Your task to perform on an android device: install app "Mercado Libre" Image 0: 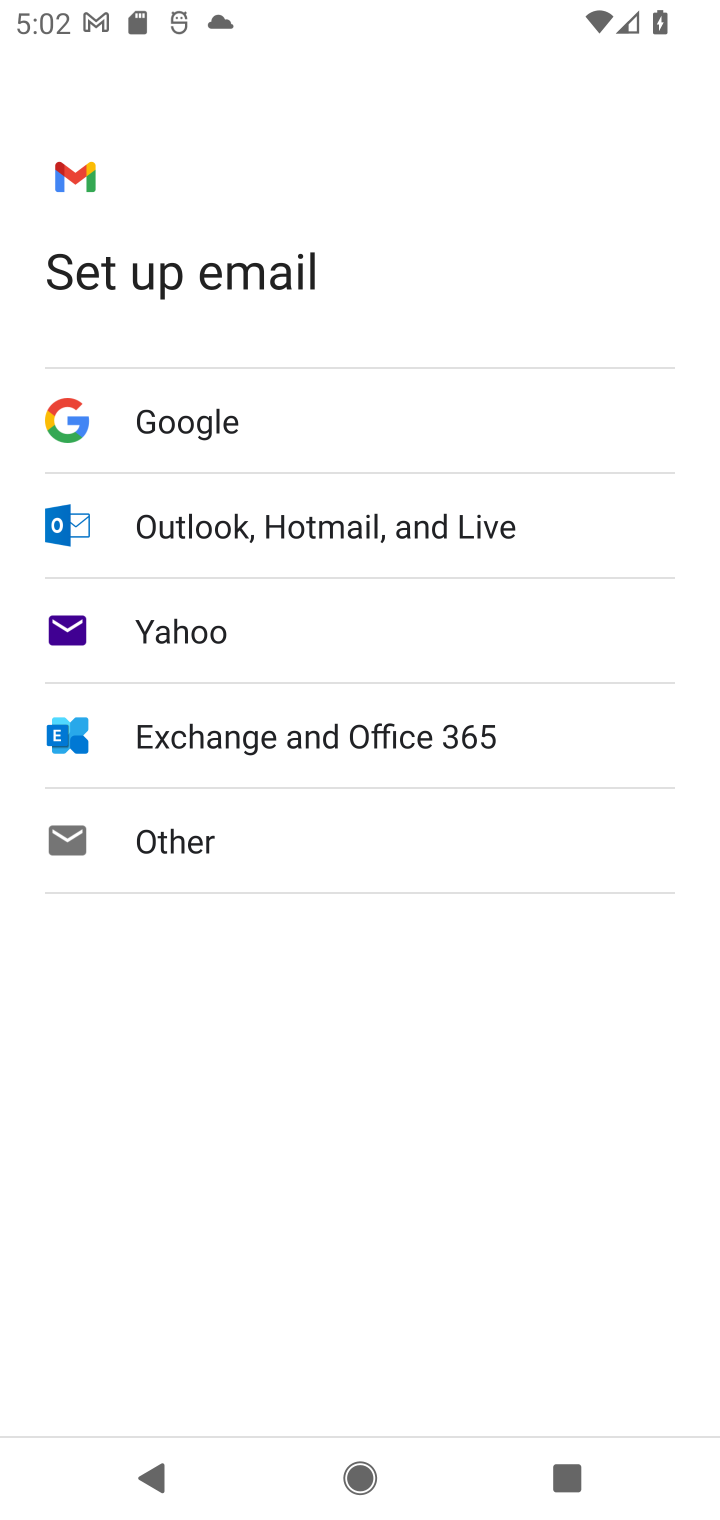
Step 0: press home button
Your task to perform on an android device: install app "Mercado Libre" Image 1: 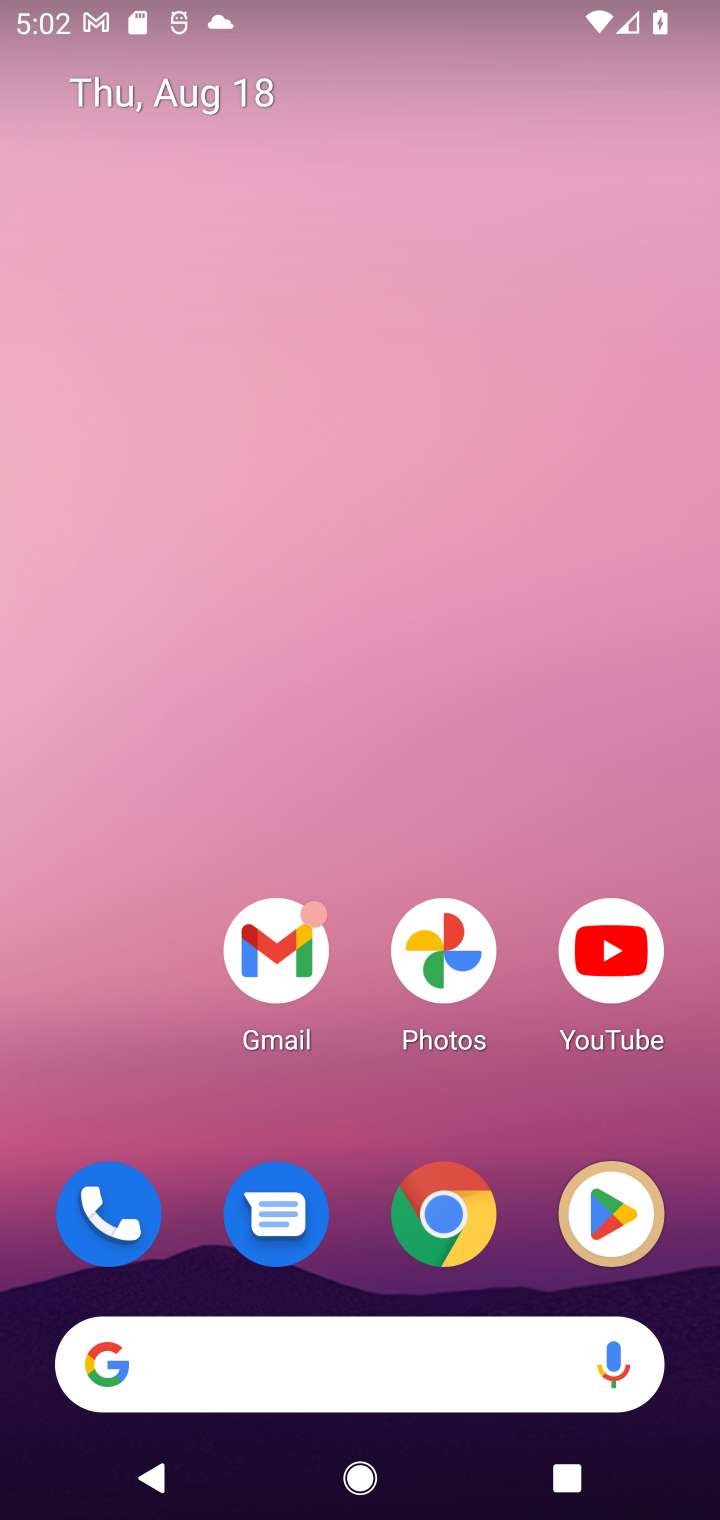
Step 1: click (612, 1194)
Your task to perform on an android device: install app "Mercado Libre" Image 2: 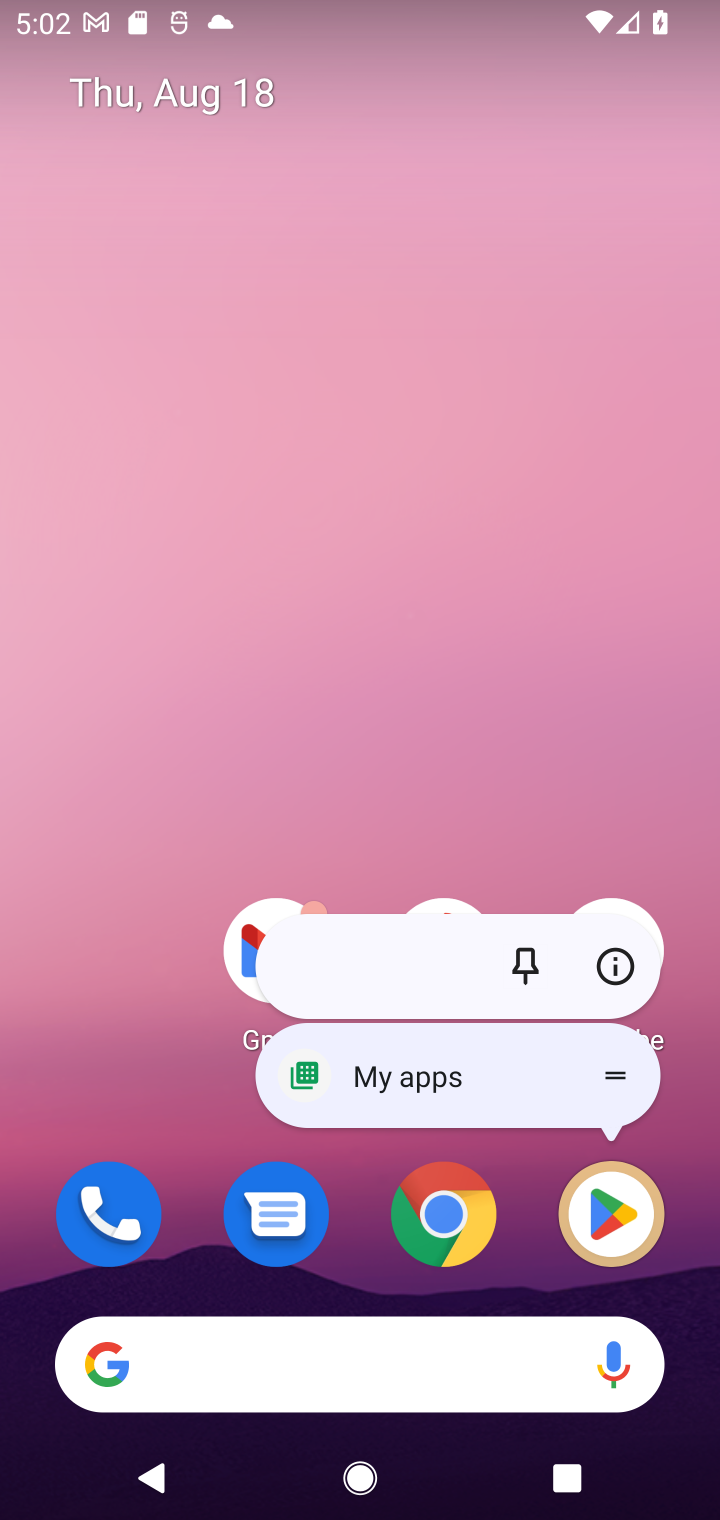
Step 2: click (606, 1194)
Your task to perform on an android device: install app "Mercado Libre" Image 3: 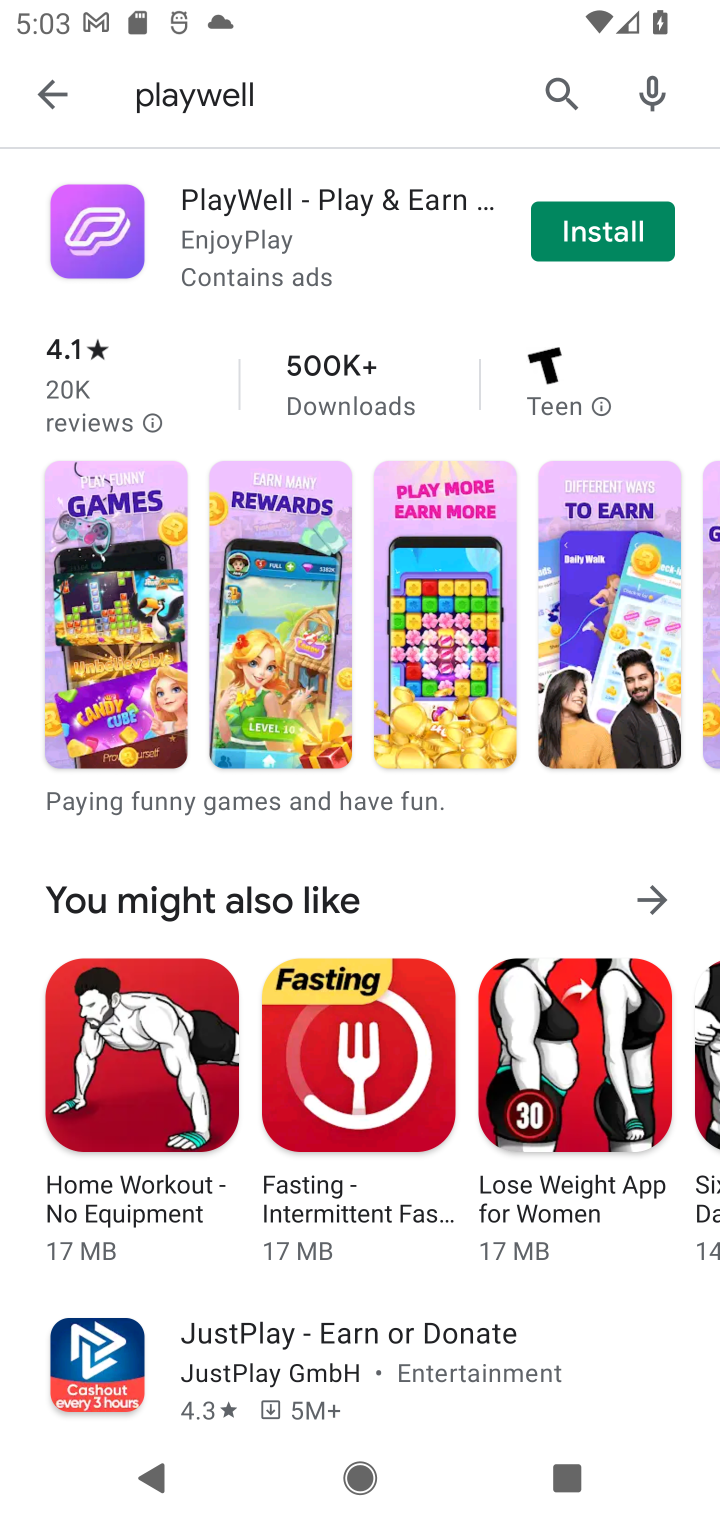
Step 3: click (317, 94)
Your task to perform on an android device: install app "Mercado Libre" Image 4: 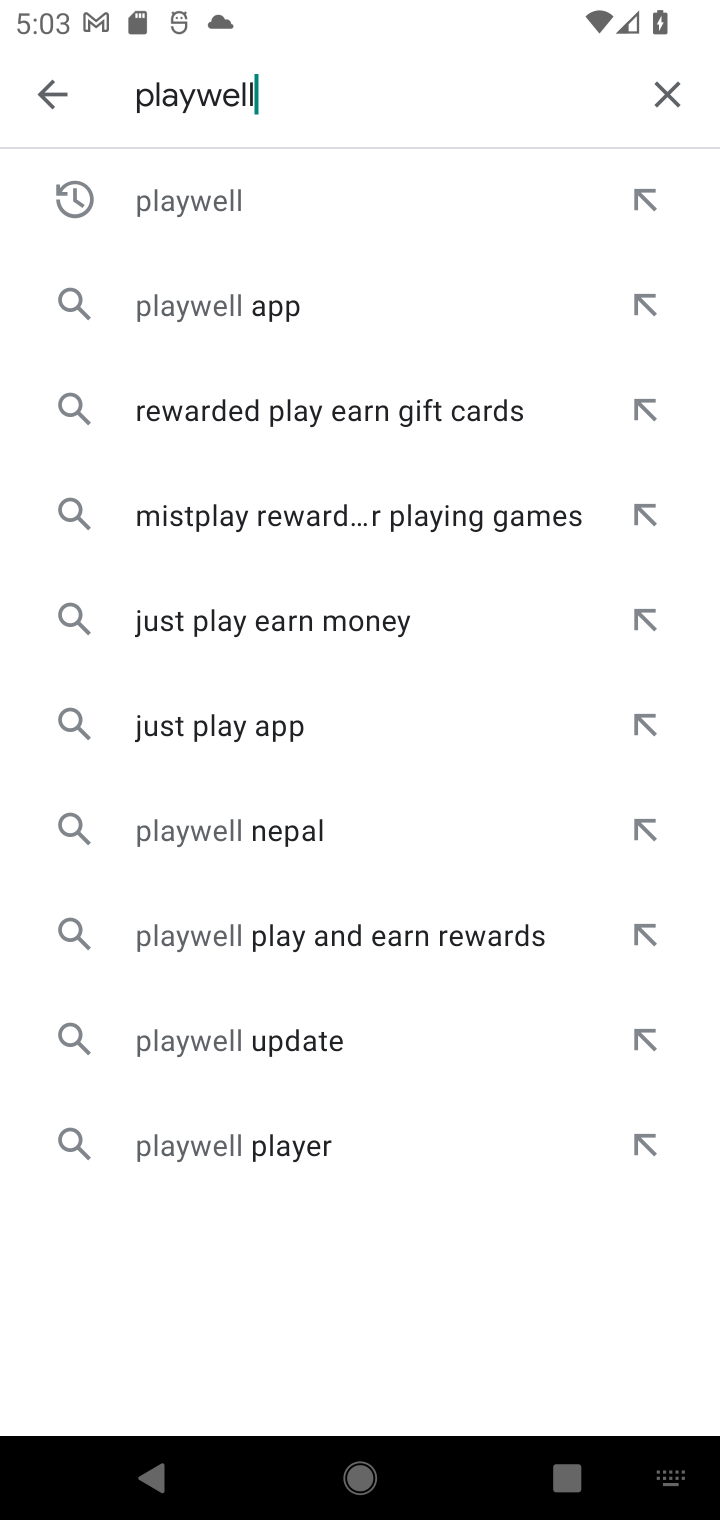
Step 4: click (669, 82)
Your task to perform on an android device: install app "Mercado Libre" Image 5: 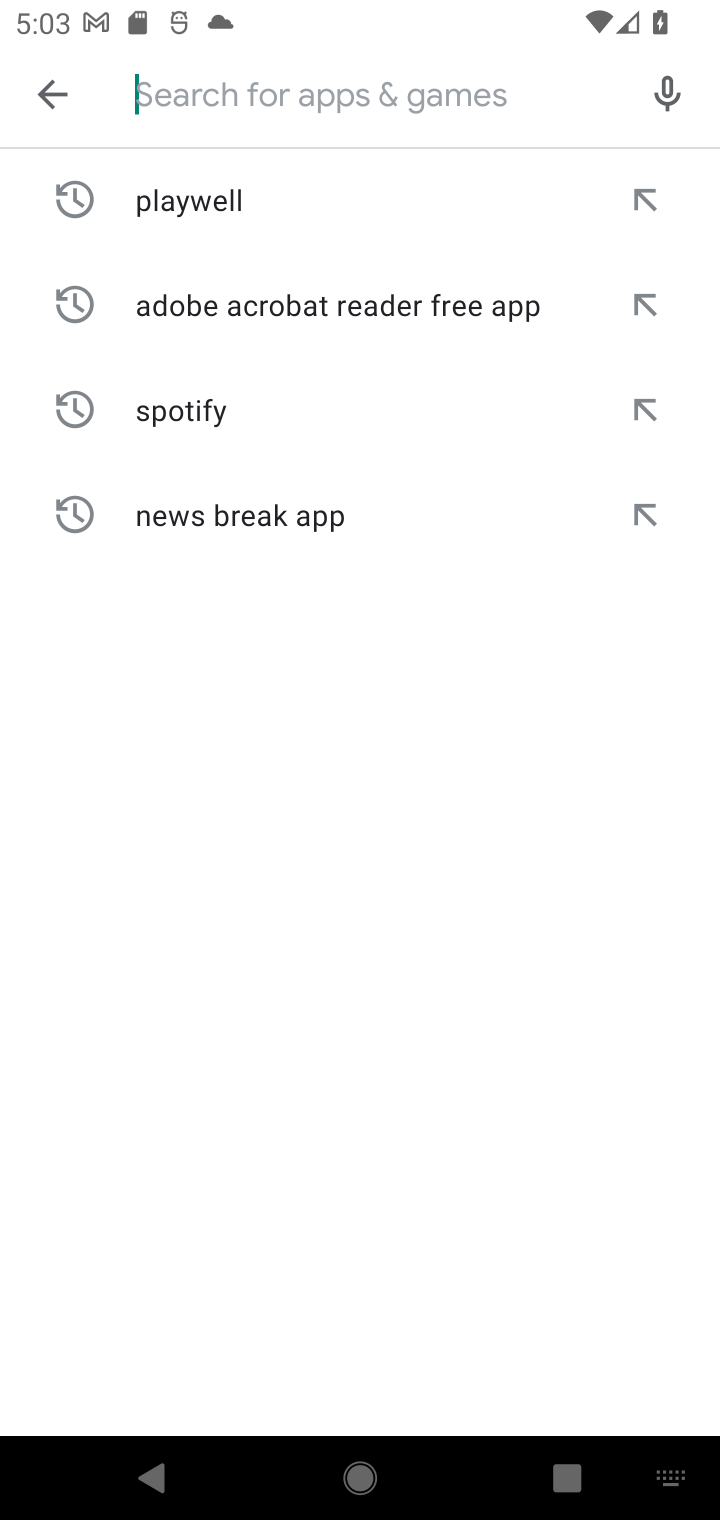
Step 5: type "mercado libre"
Your task to perform on an android device: install app "Mercado Libre" Image 6: 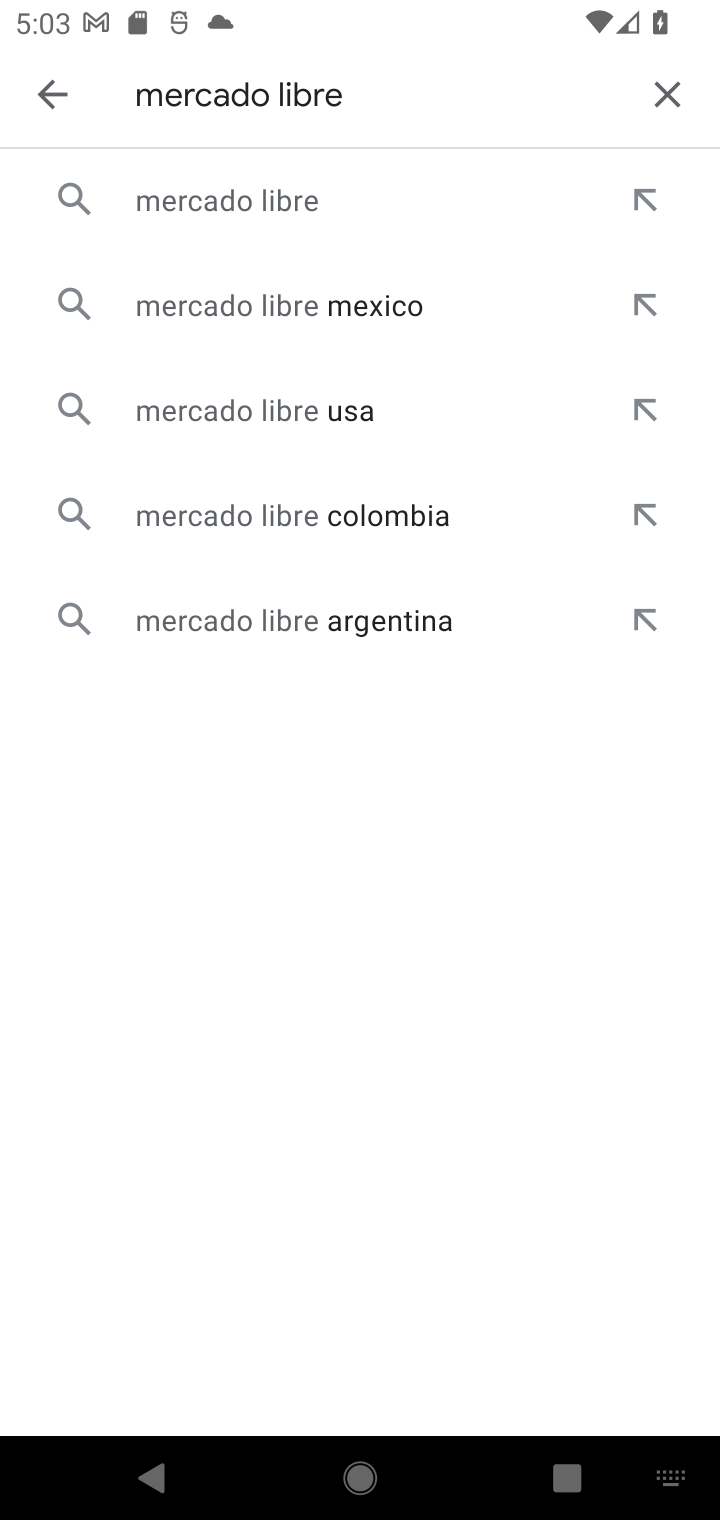
Step 6: click (294, 214)
Your task to perform on an android device: install app "Mercado Libre" Image 7: 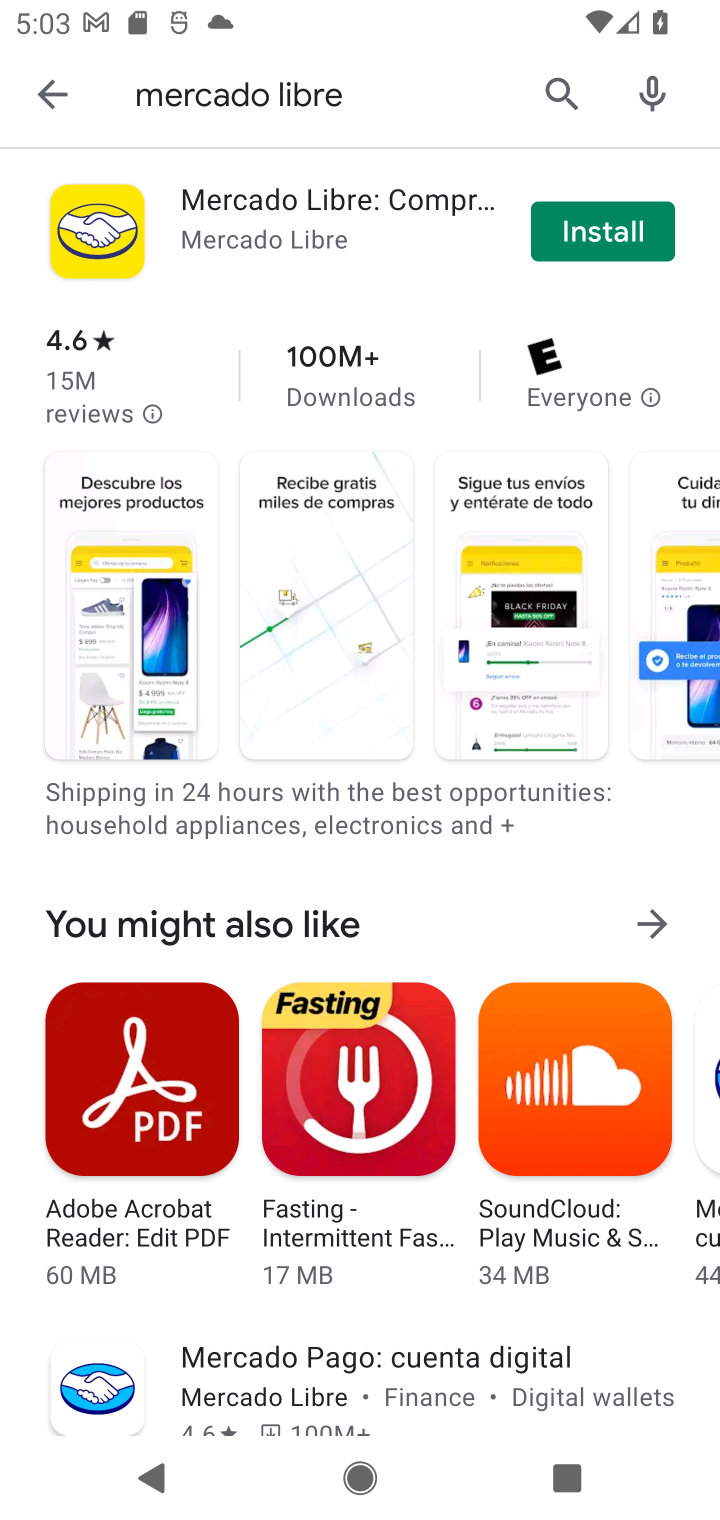
Step 7: click (632, 234)
Your task to perform on an android device: install app "Mercado Libre" Image 8: 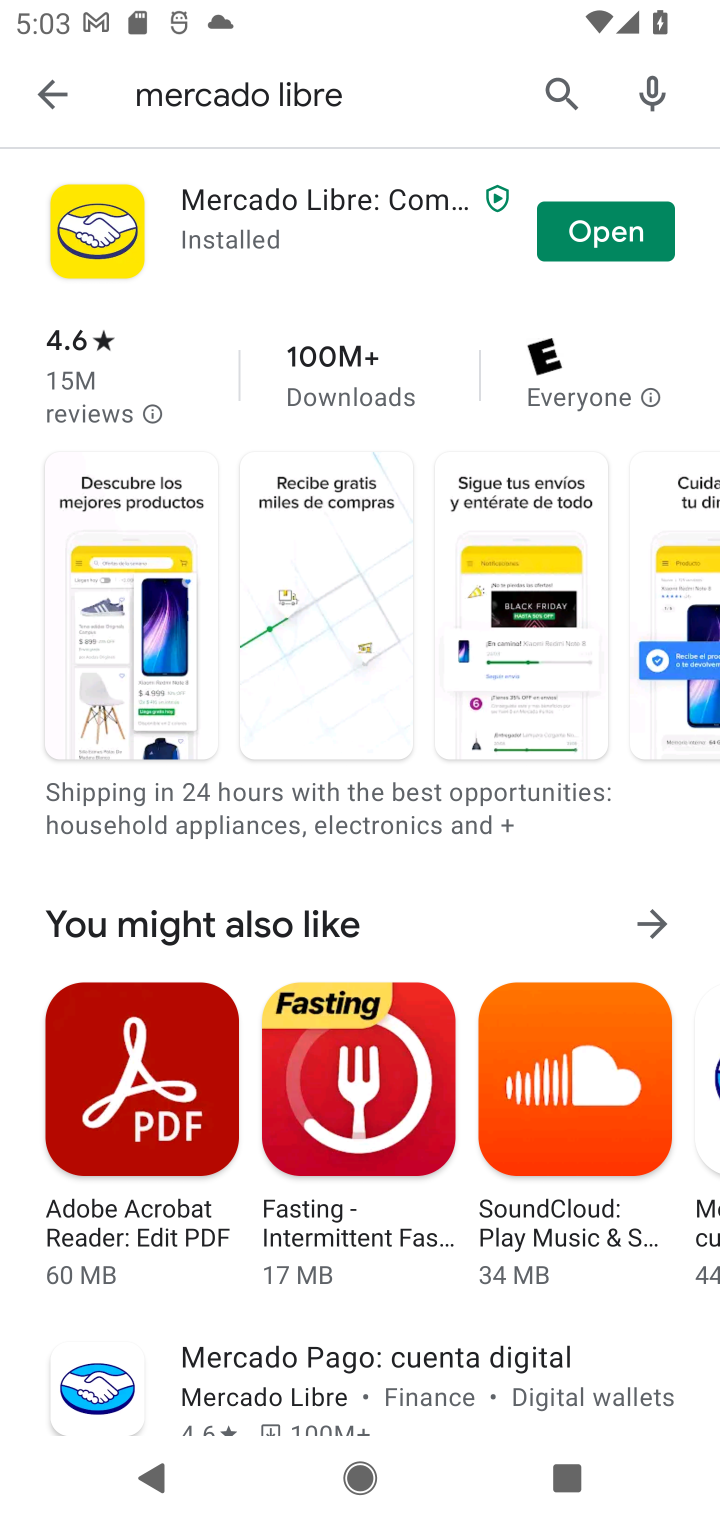
Step 8: task complete